Your task to perform on an android device: Open the stopwatch Image 0: 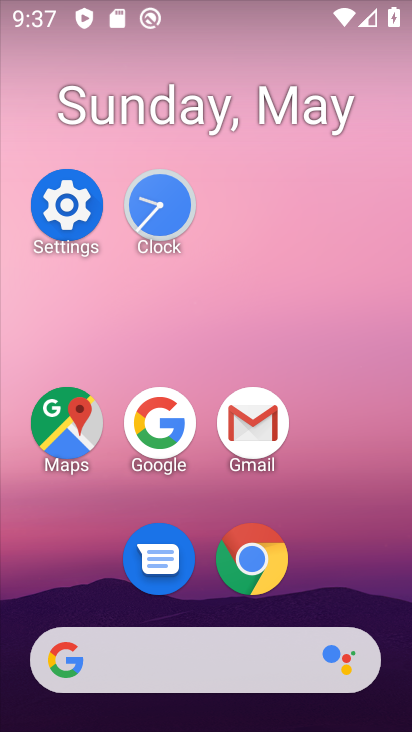
Step 0: click (167, 231)
Your task to perform on an android device: Open the stopwatch Image 1: 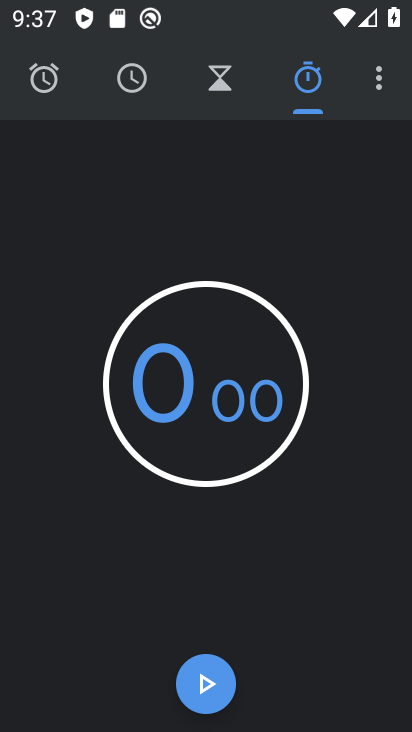
Step 1: task complete